Your task to perform on an android device: change your default location settings in chrome Image 0: 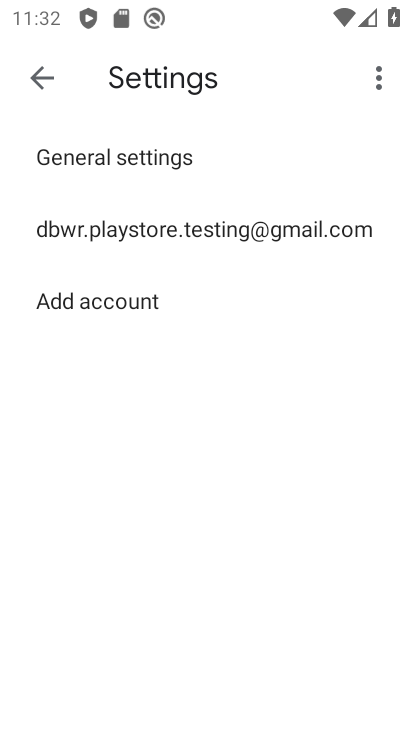
Step 0: press home button
Your task to perform on an android device: change your default location settings in chrome Image 1: 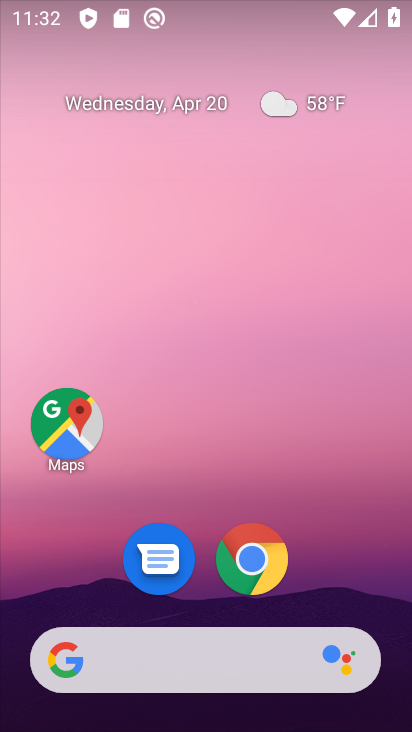
Step 1: click (253, 566)
Your task to perform on an android device: change your default location settings in chrome Image 2: 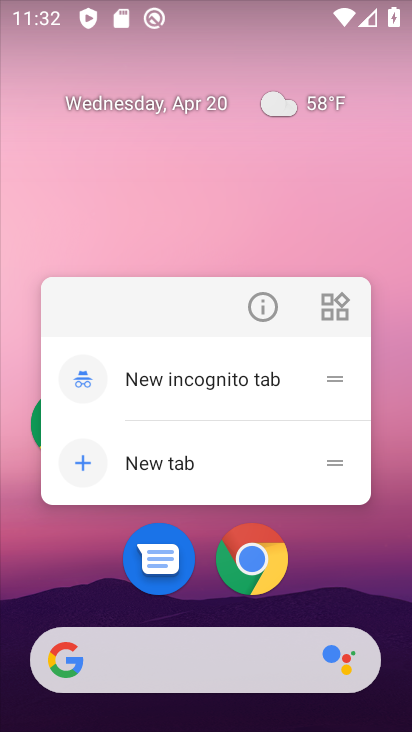
Step 2: click (259, 567)
Your task to perform on an android device: change your default location settings in chrome Image 3: 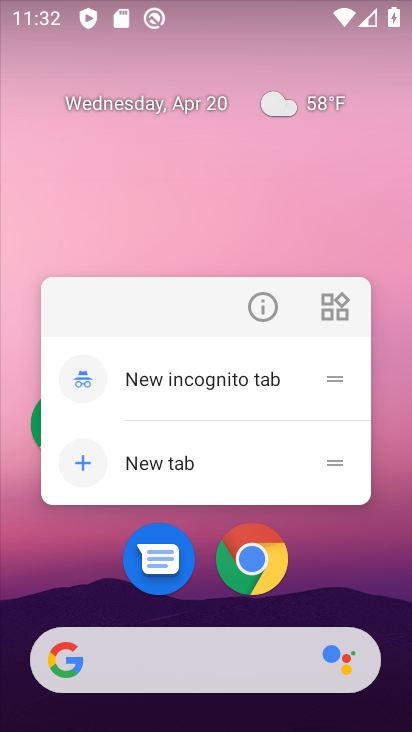
Step 3: click (246, 569)
Your task to perform on an android device: change your default location settings in chrome Image 4: 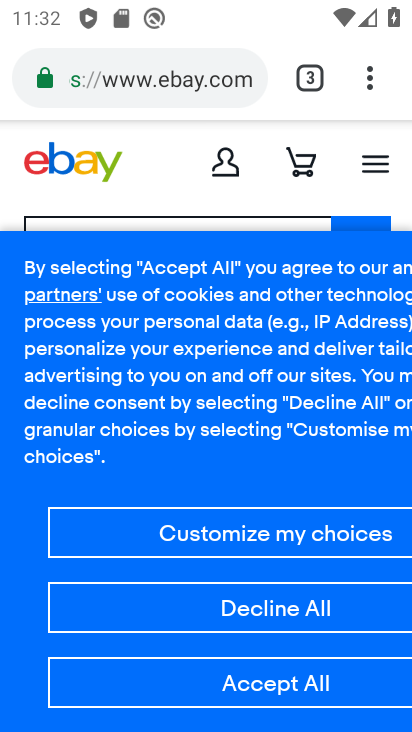
Step 4: click (363, 81)
Your task to perform on an android device: change your default location settings in chrome Image 5: 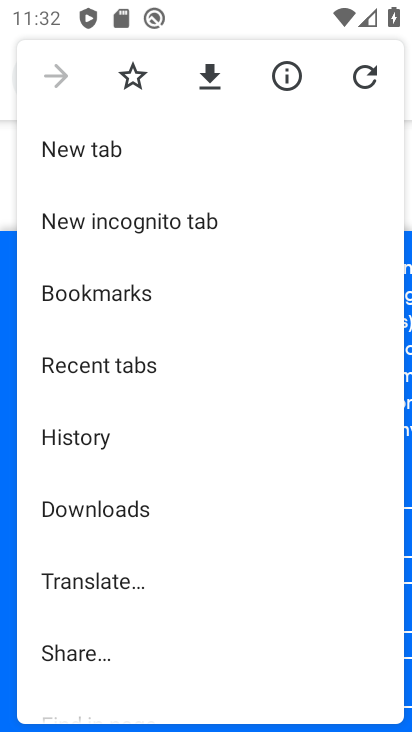
Step 5: drag from (186, 604) to (190, 168)
Your task to perform on an android device: change your default location settings in chrome Image 6: 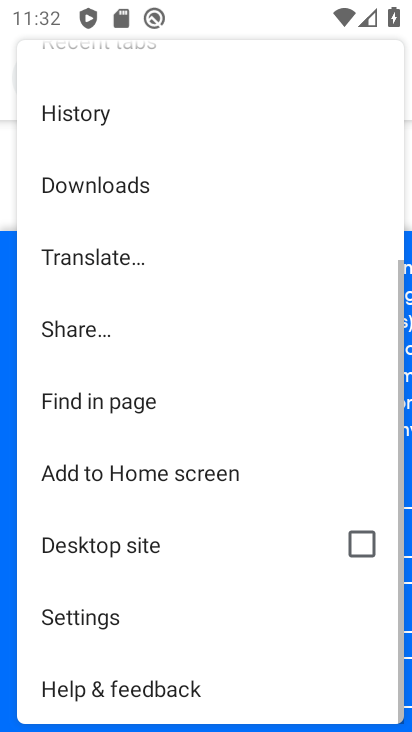
Step 6: click (176, 625)
Your task to perform on an android device: change your default location settings in chrome Image 7: 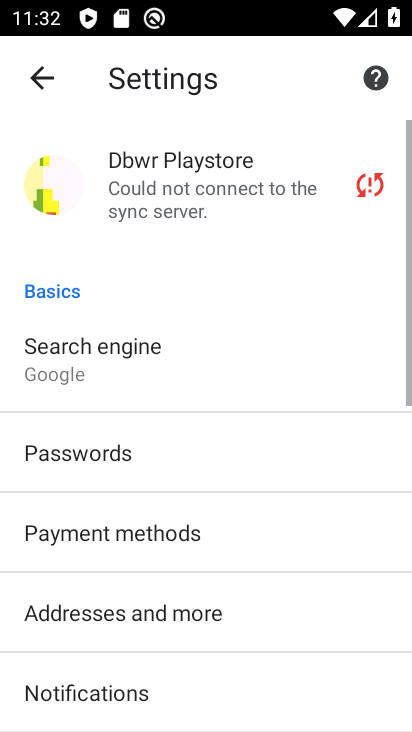
Step 7: drag from (225, 621) to (225, 157)
Your task to perform on an android device: change your default location settings in chrome Image 8: 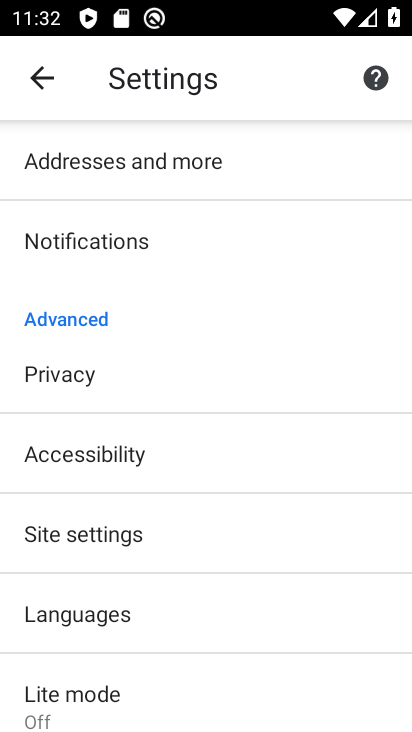
Step 8: drag from (170, 638) to (174, 355)
Your task to perform on an android device: change your default location settings in chrome Image 9: 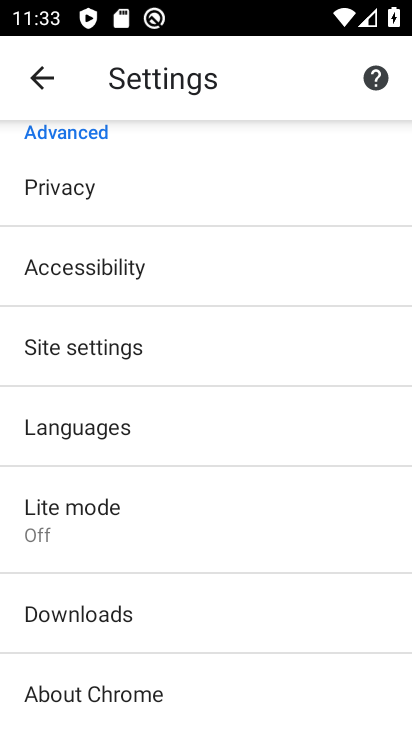
Step 9: click (136, 331)
Your task to perform on an android device: change your default location settings in chrome Image 10: 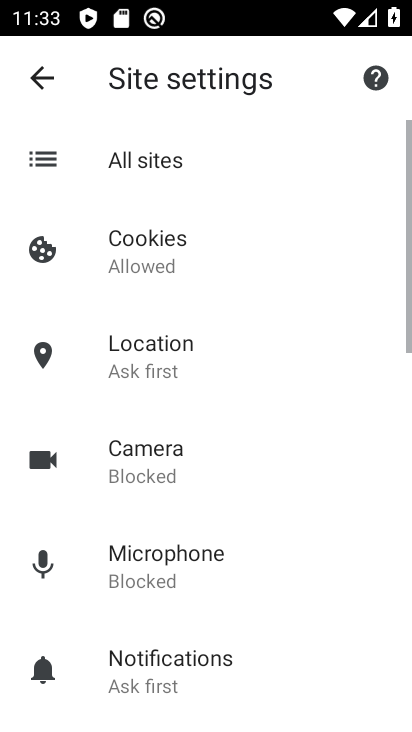
Step 10: click (172, 368)
Your task to perform on an android device: change your default location settings in chrome Image 11: 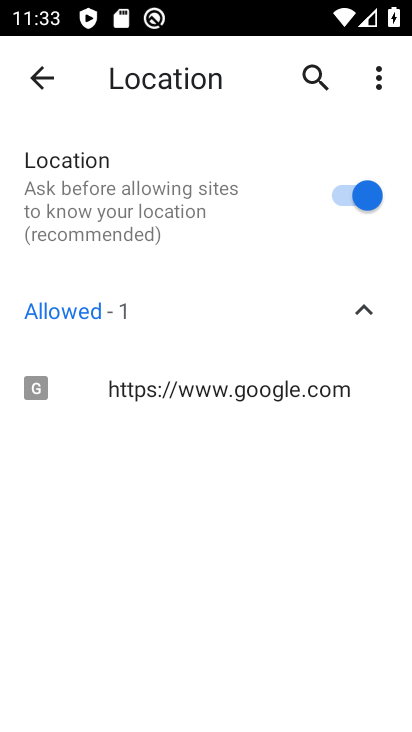
Step 11: click (342, 196)
Your task to perform on an android device: change your default location settings in chrome Image 12: 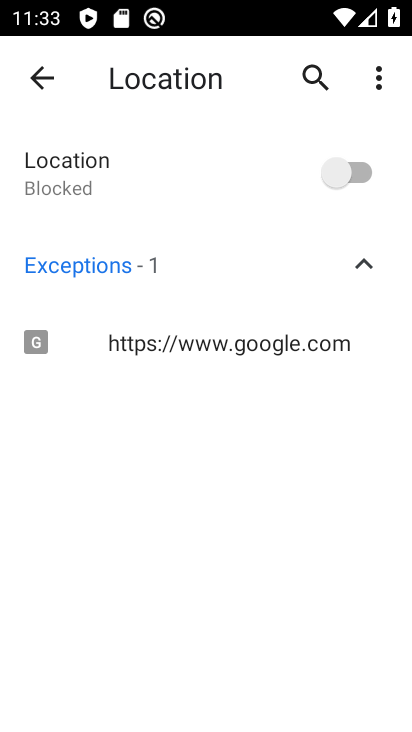
Step 12: task complete